Your task to perform on an android device: turn on location history Image 0: 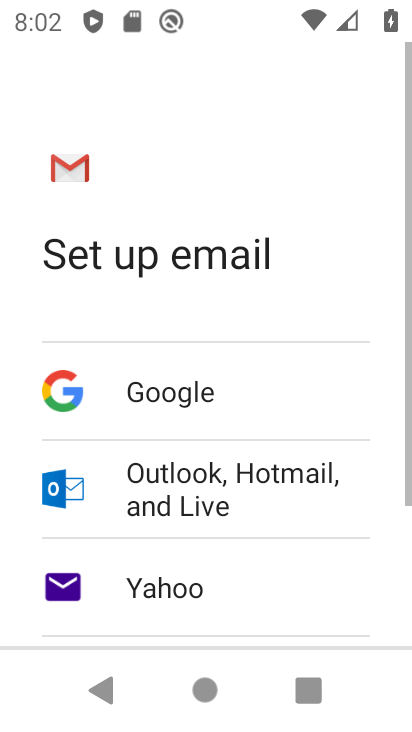
Step 0: press back button
Your task to perform on an android device: turn on location history Image 1: 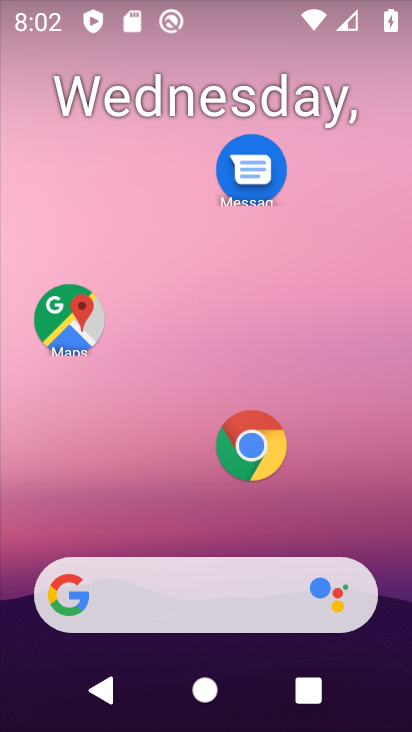
Step 1: drag from (233, 673) to (121, 195)
Your task to perform on an android device: turn on location history Image 2: 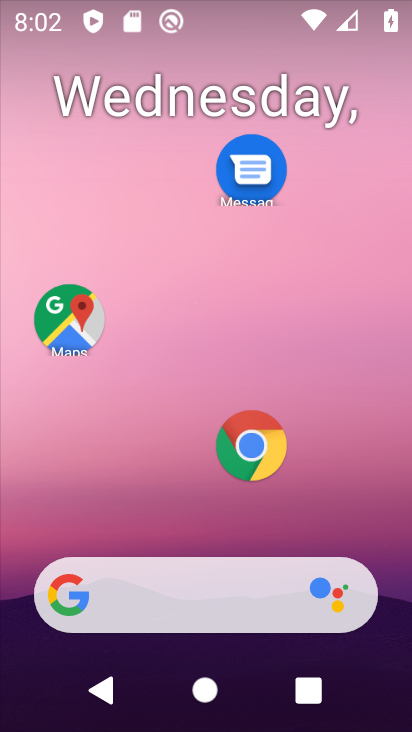
Step 2: drag from (235, 659) to (210, 214)
Your task to perform on an android device: turn on location history Image 3: 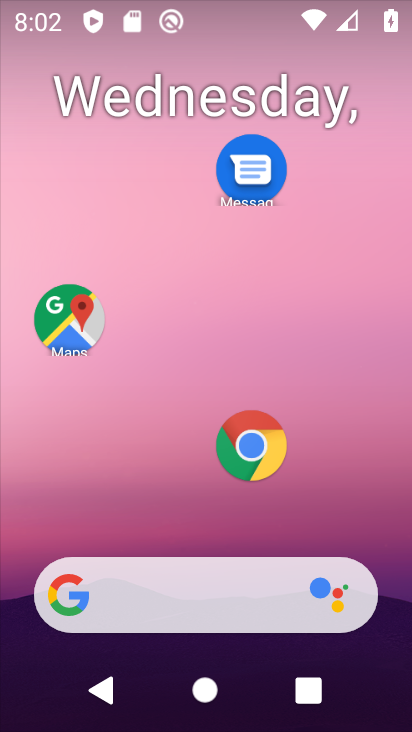
Step 3: drag from (255, 609) to (191, 354)
Your task to perform on an android device: turn on location history Image 4: 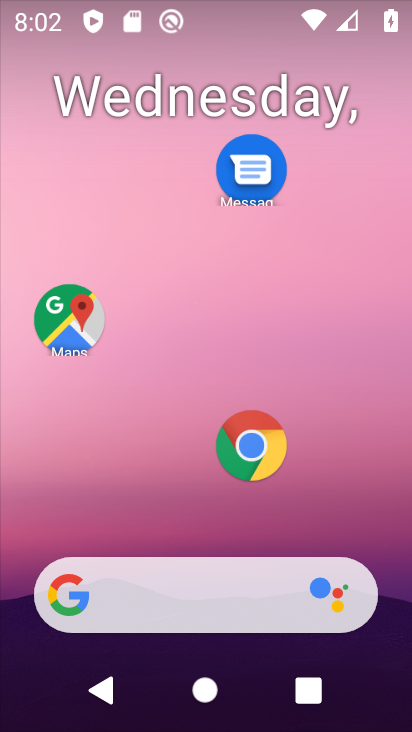
Step 4: drag from (240, 549) to (239, 256)
Your task to perform on an android device: turn on location history Image 5: 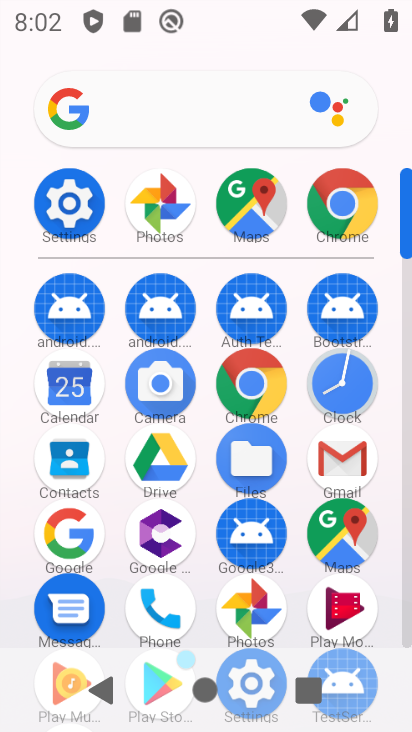
Step 5: click (355, 496)
Your task to perform on an android device: turn on location history Image 6: 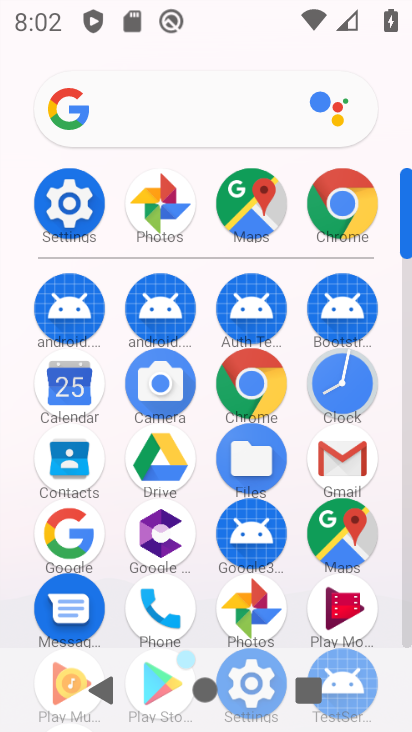
Step 6: click (354, 521)
Your task to perform on an android device: turn on location history Image 7: 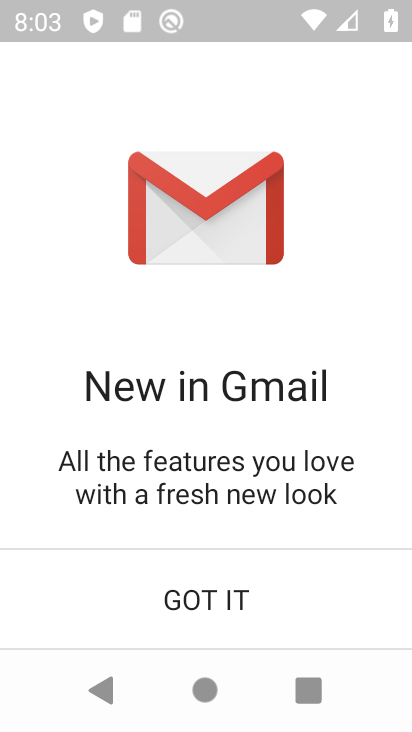
Step 7: press back button
Your task to perform on an android device: turn on location history Image 8: 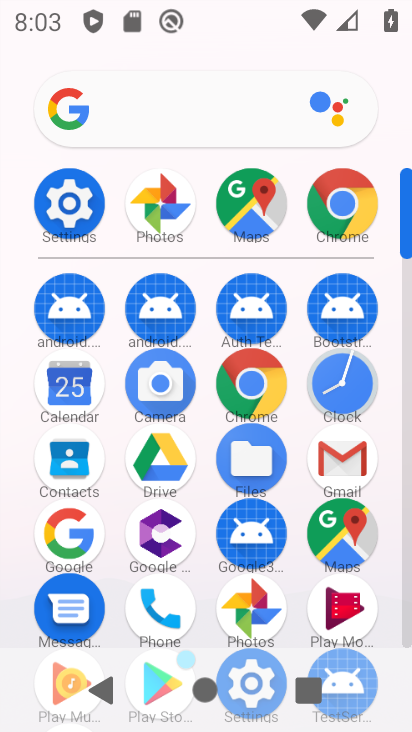
Step 8: click (53, 202)
Your task to perform on an android device: turn on location history Image 9: 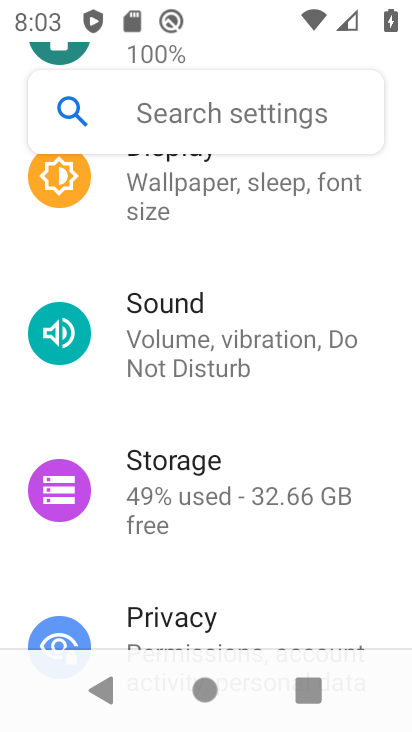
Step 9: drag from (245, 283) to (265, 162)
Your task to perform on an android device: turn on location history Image 10: 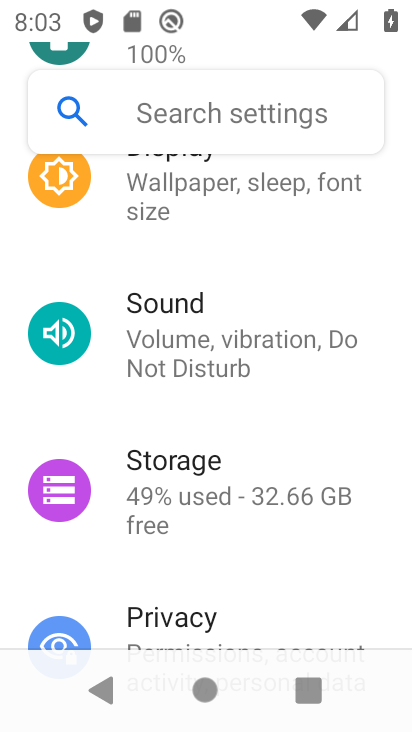
Step 10: drag from (187, 439) to (198, 206)
Your task to perform on an android device: turn on location history Image 11: 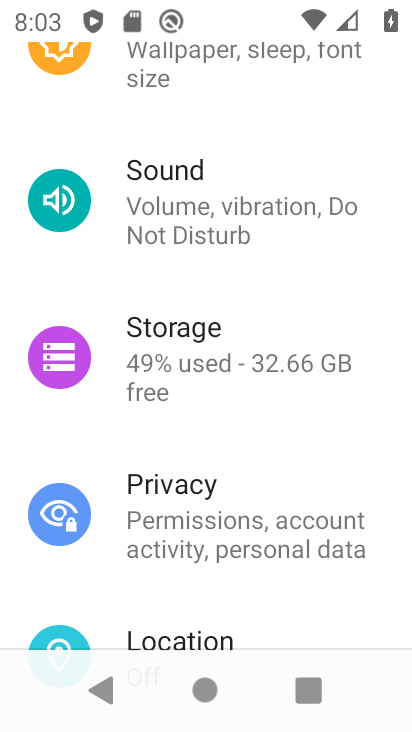
Step 11: click (198, 293)
Your task to perform on an android device: turn on location history Image 12: 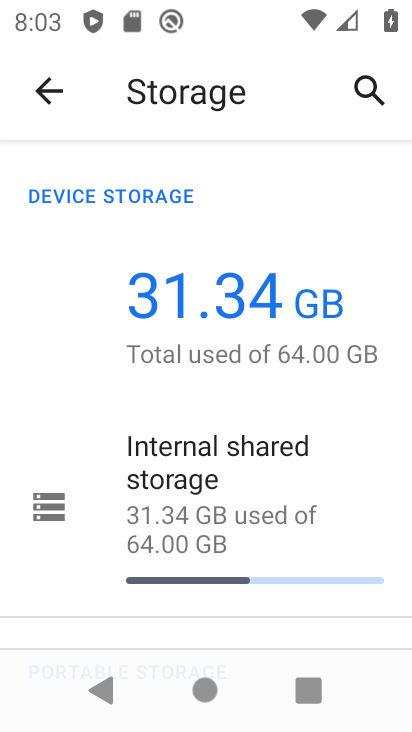
Step 12: click (45, 86)
Your task to perform on an android device: turn on location history Image 13: 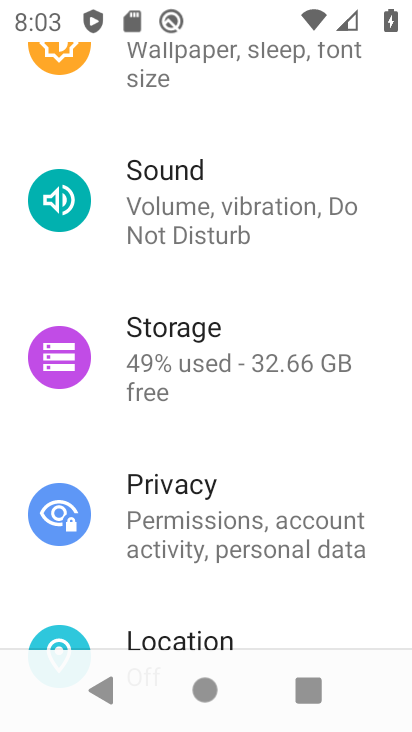
Step 13: drag from (190, 570) to (143, 164)
Your task to perform on an android device: turn on location history Image 14: 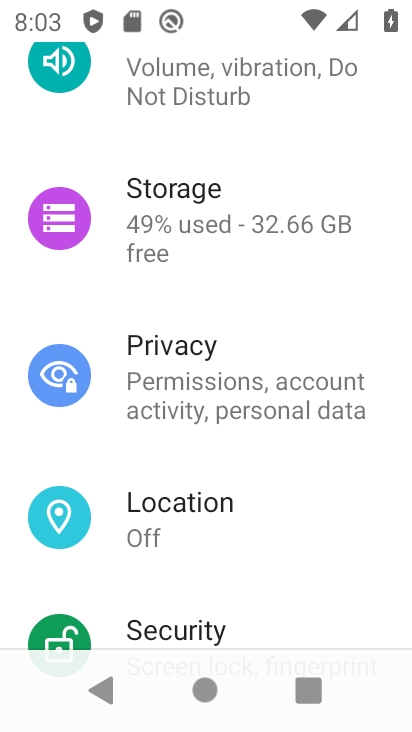
Step 14: click (179, 521)
Your task to perform on an android device: turn on location history Image 15: 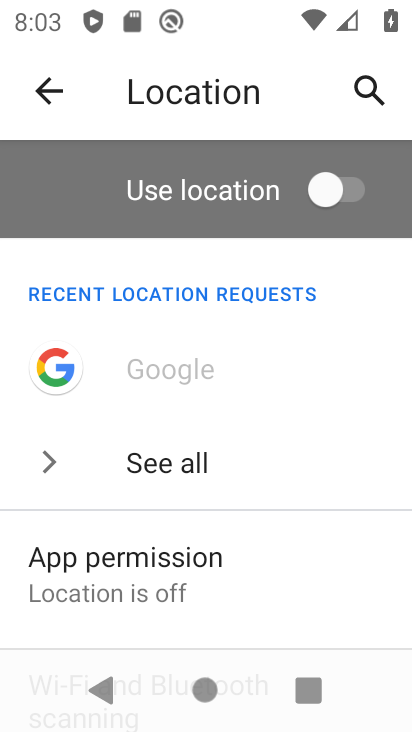
Step 15: drag from (204, 571) to (128, 272)
Your task to perform on an android device: turn on location history Image 16: 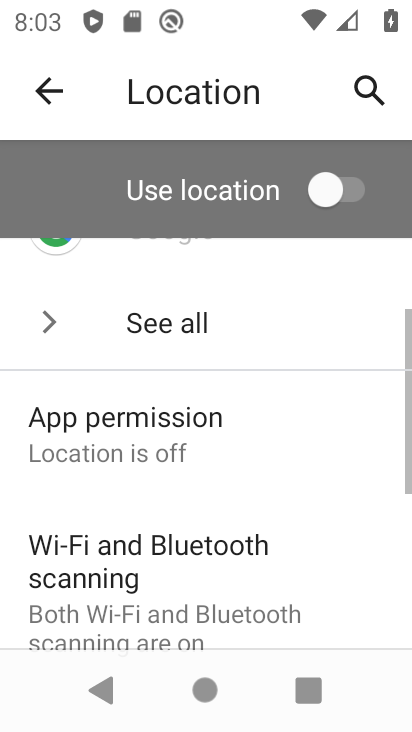
Step 16: drag from (211, 523) to (203, 225)
Your task to perform on an android device: turn on location history Image 17: 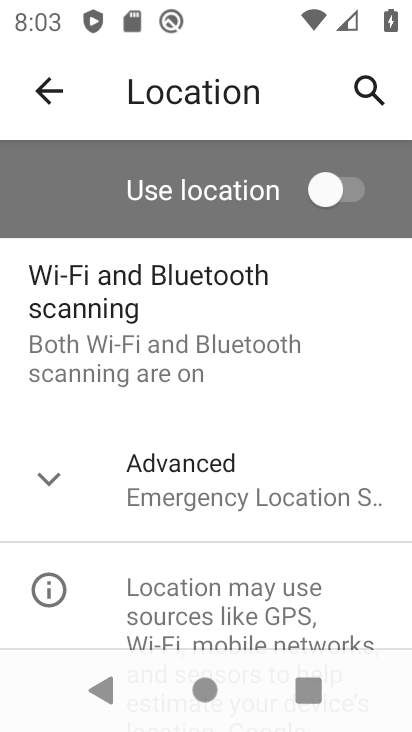
Step 17: click (192, 478)
Your task to perform on an android device: turn on location history Image 18: 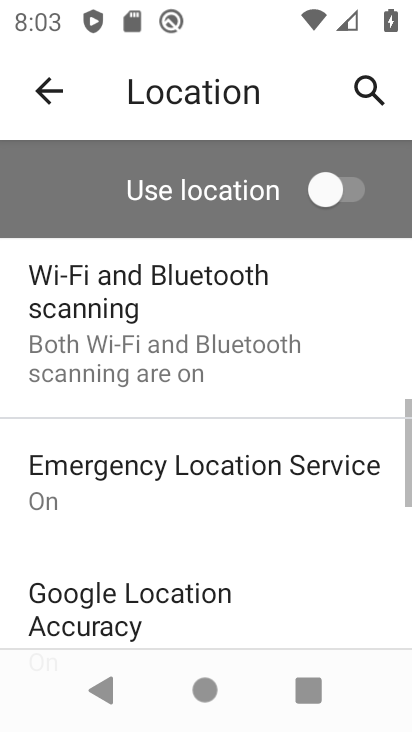
Step 18: drag from (174, 551) to (190, 318)
Your task to perform on an android device: turn on location history Image 19: 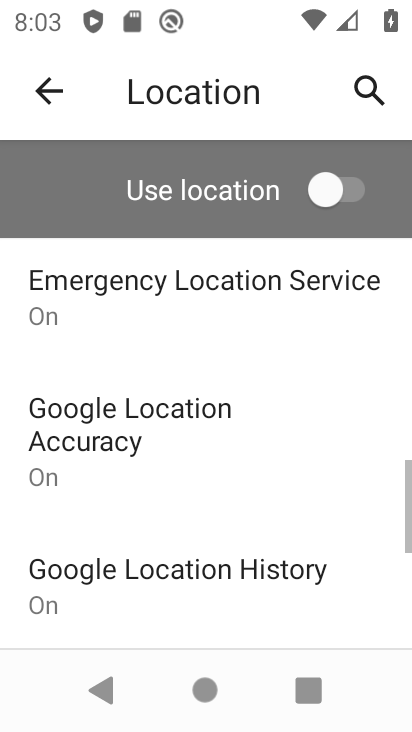
Step 19: drag from (225, 495) to (241, 267)
Your task to perform on an android device: turn on location history Image 20: 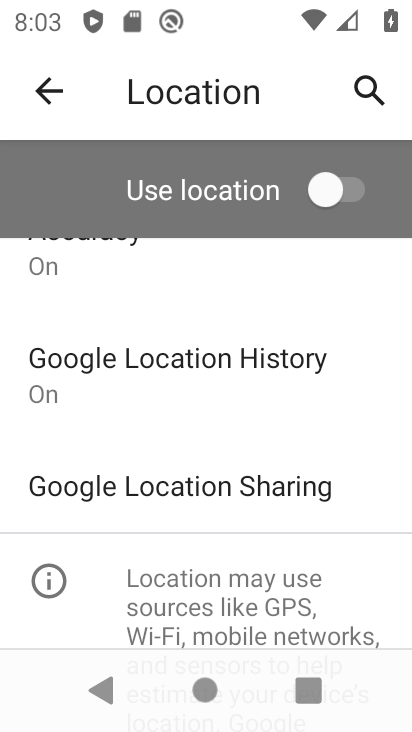
Step 20: click (123, 356)
Your task to perform on an android device: turn on location history Image 21: 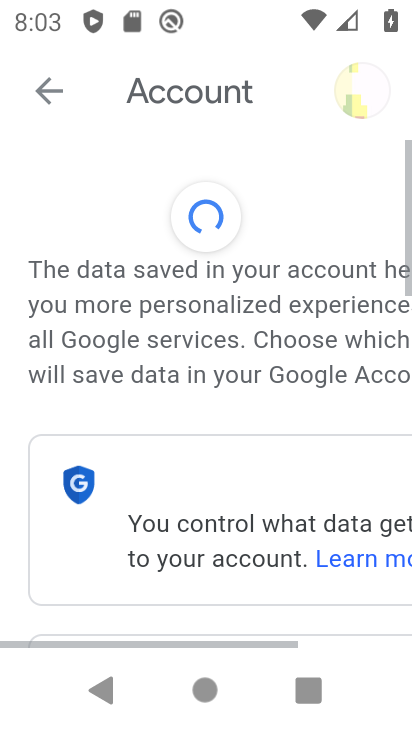
Step 21: click (38, 86)
Your task to perform on an android device: turn on location history Image 22: 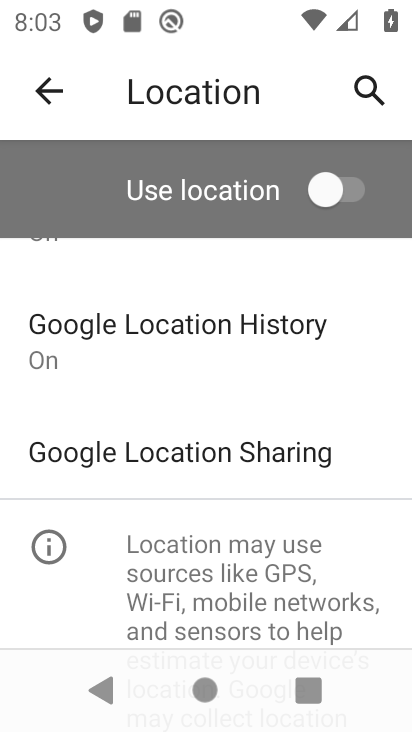
Step 22: click (323, 187)
Your task to perform on an android device: turn on location history Image 23: 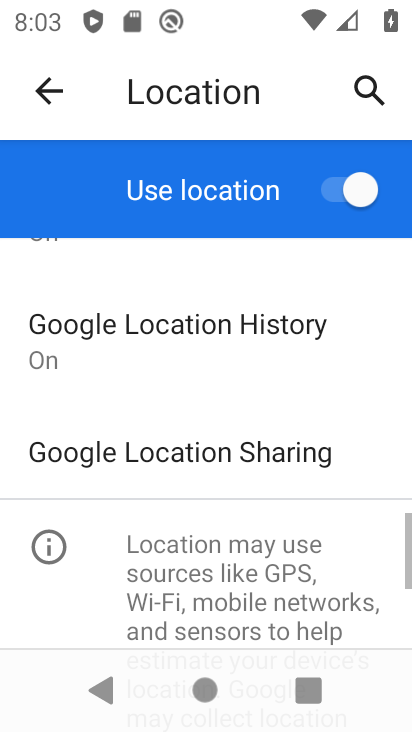
Step 23: task complete